Your task to perform on an android device: open wifi settings Image 0: 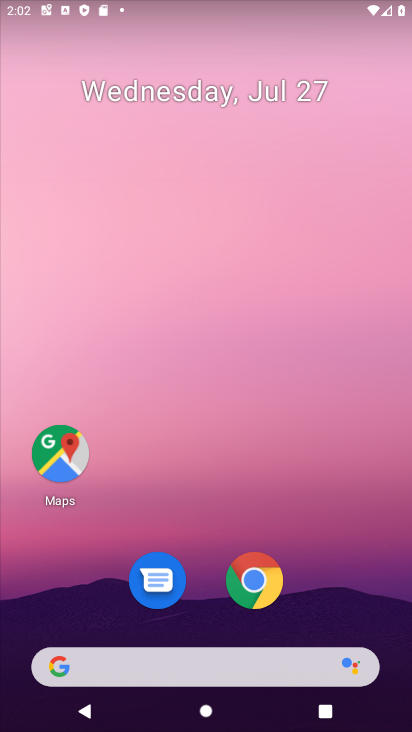
Step 0: press home button
Your task to perform on an android device: open wifi settings Image 1: 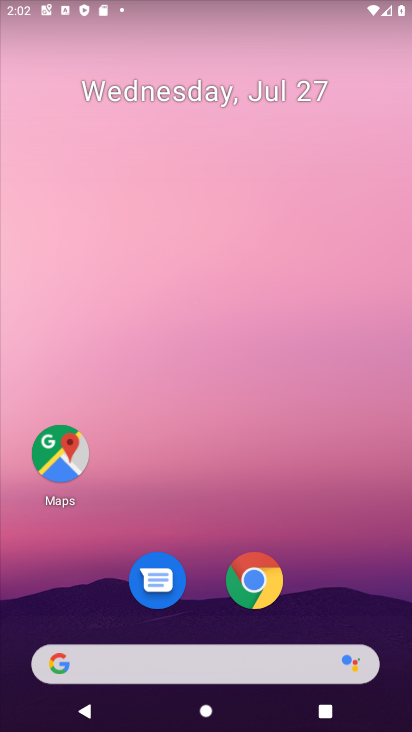
Step 1: drag from (201, 442) to (201, 167)
Your task to perform on an android device: open wifi settings Image 2: 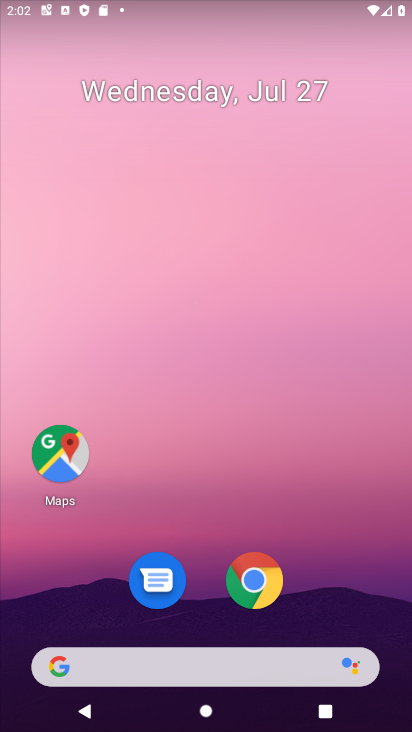
Step 2: drag from (200, 546) to (190, 74)
Your task to perform on an android device: open wifi settings Image 3: 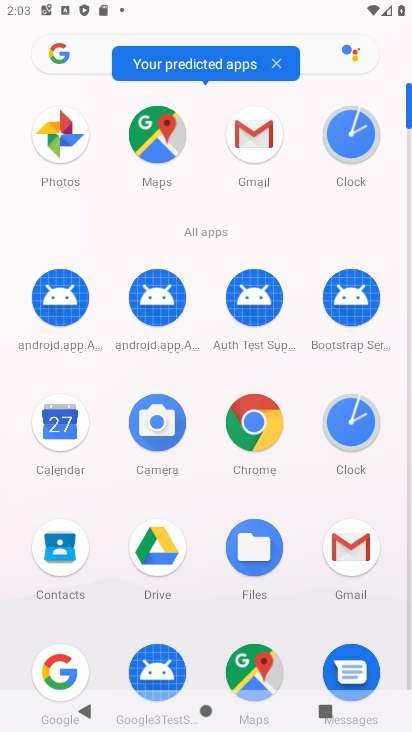
Step 3: drag from (115, 580) to (142, 219)
Your task to perform on an android device: open wifi settings Image 4: 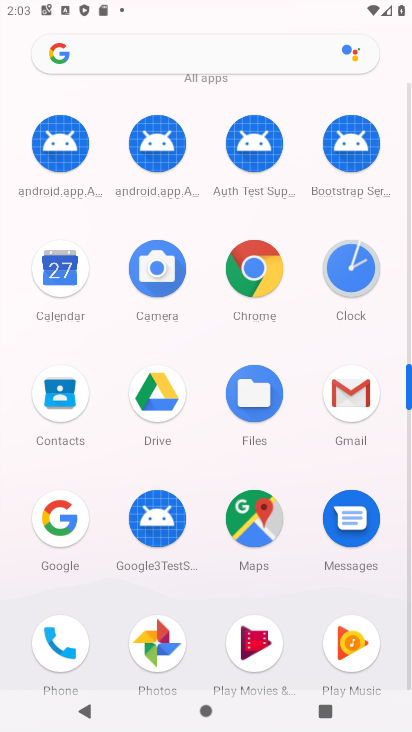
Step 4: drag from (122, 592) to (123, 290)
Your task to perform on an android device: open wifi settings Image 5: 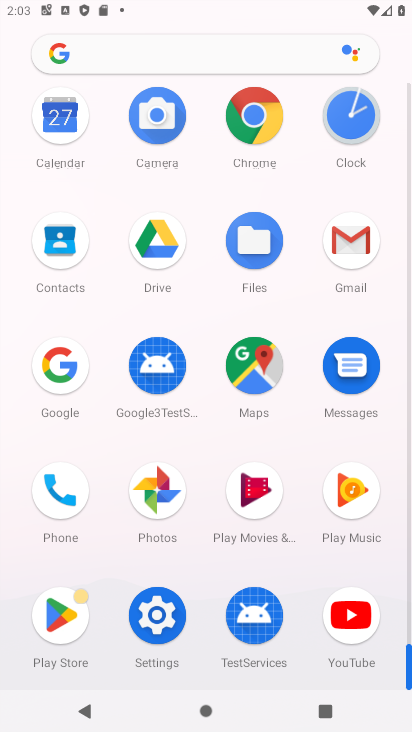
Step 5: click (147, 631)
Your task to perform on an android device: open wifi settings Image 6: 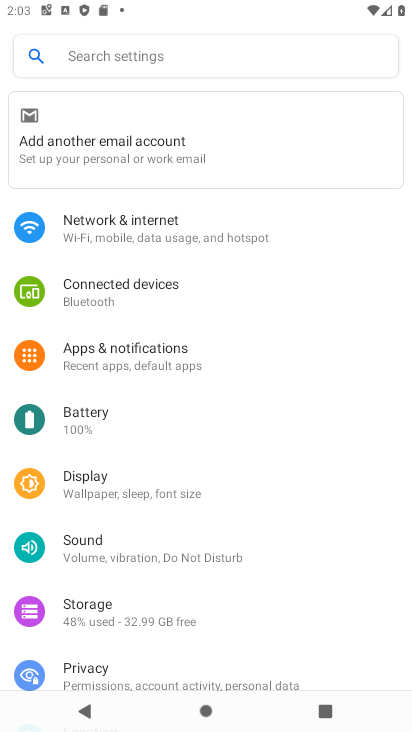
Step 6: click (151, 214)
Your task to perform on an android device: open wifi settings Image 7: 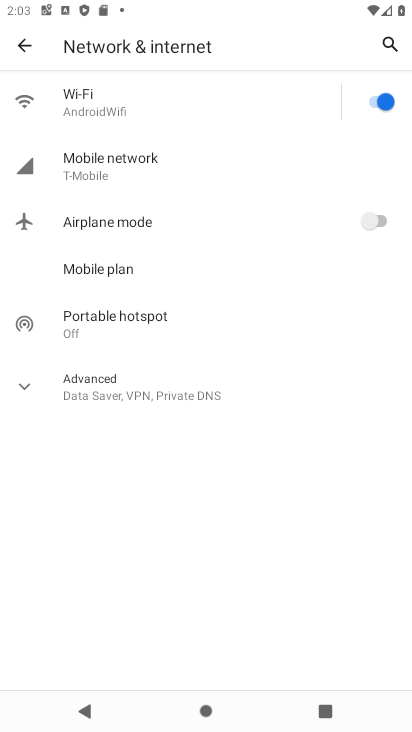
Step 7: click (104, 126)
Your task to perform on an android device: open wifi settings Image 8: 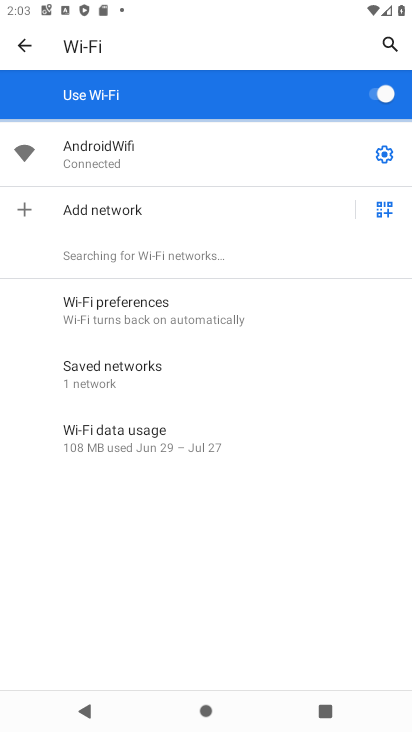
Step 8: task complete